Your task to perform on an android device: What is the news today? Image 0: 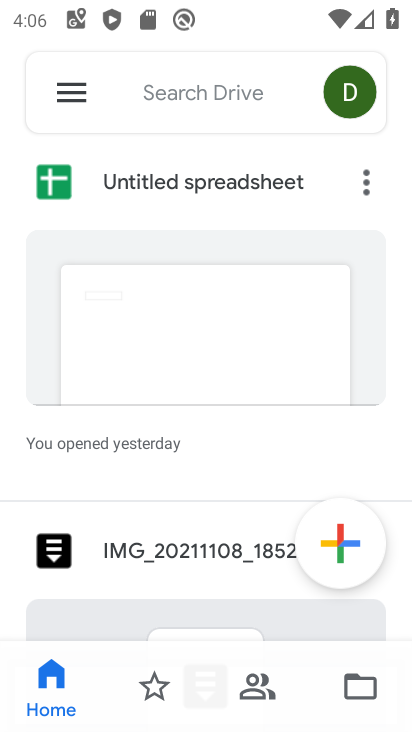
Step 0: press home button
Your task to perform on an android device: What is the news today? Image 1: 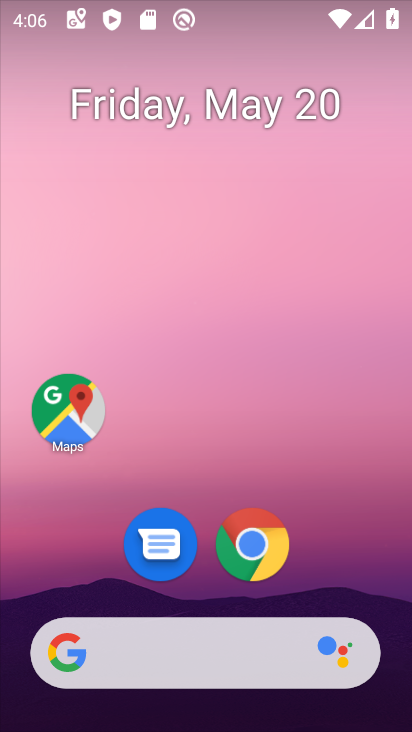
Step 1: click (107, 657)
Your task to perform on an android device: What is the news today? Image 2: 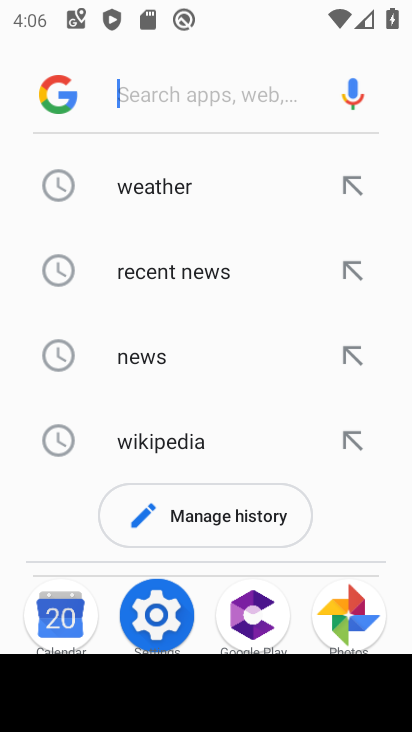
Step 2: click (150, 98)
Your task to perform on an android device: What is the news today? Image 3: 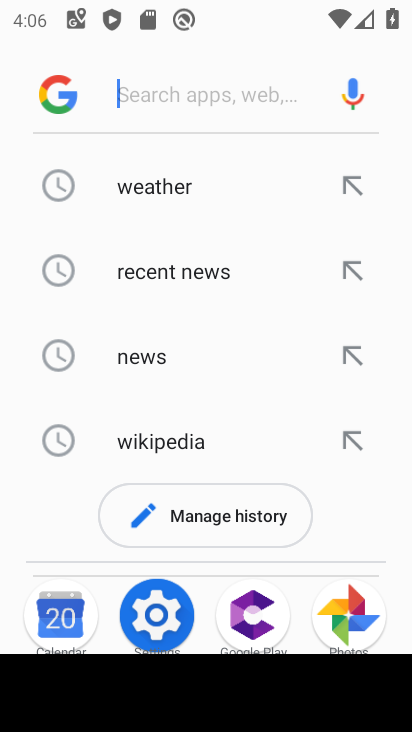
Step 3: type "news today"
Your task to perform on an android device: What is the news today? Image 4: 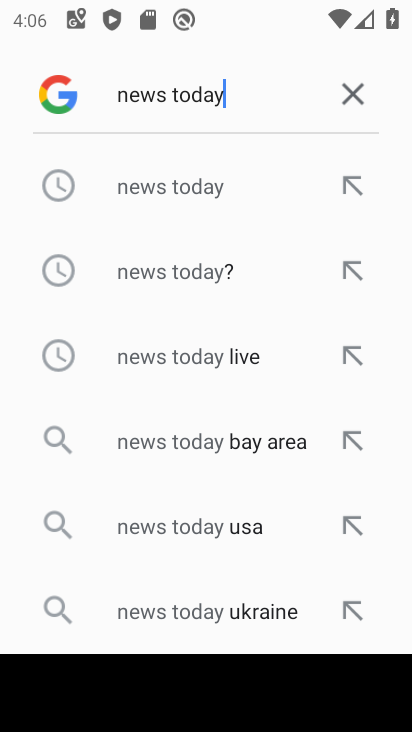
Step 4: click (156, 181)
Your task to perform on an android device: What is the news today? Image 5: 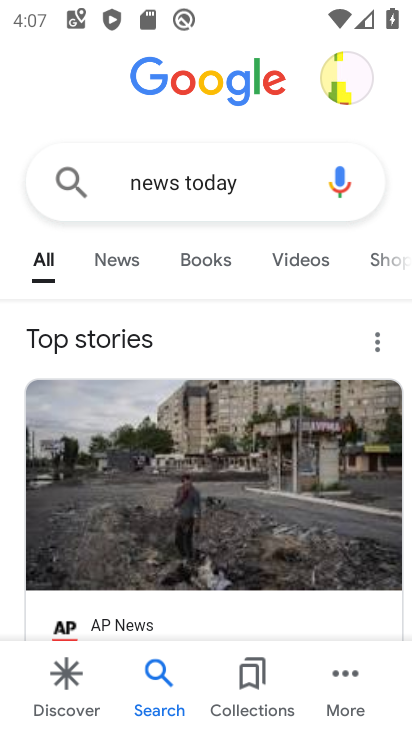
Step 5: click (118, 261)
Your task to perform on an android device: What is the news today? Image 6: 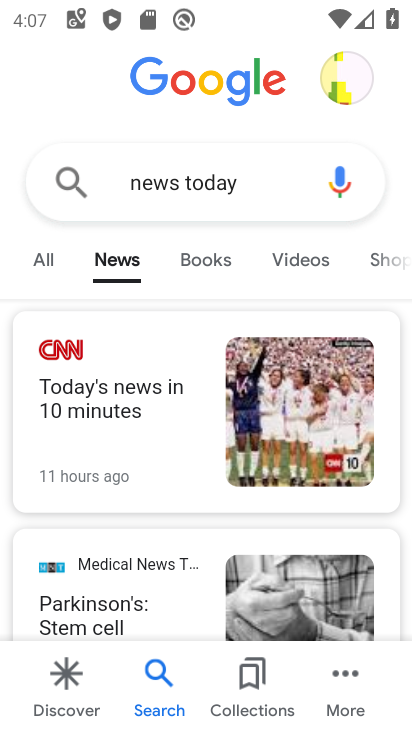
Step 6: drag from (144, 516) to (153, 244)
Your task to perform on an android device: What is the news today? Image 7: 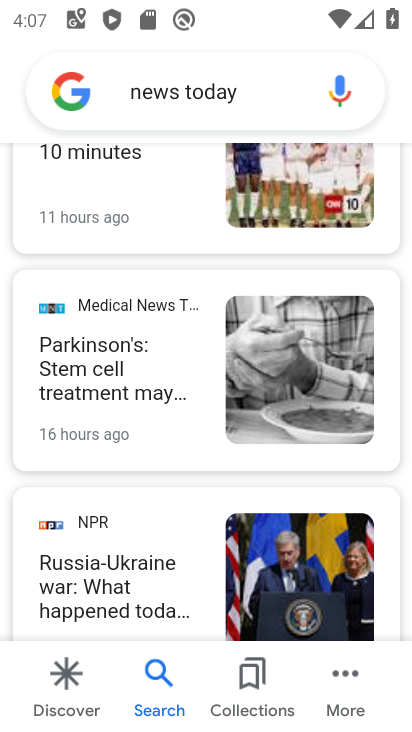
Step 7: drag from (121, 496) to (144, 243)
Your task to perform on an android device: What is the news today? Image 8: 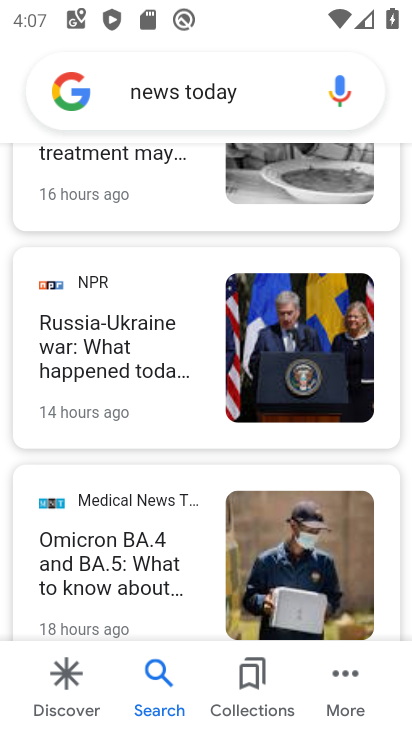
Step 8: drag from (125, 479) to (148, 272)
Your task to perform on an android device: What is the news today? Image 9: 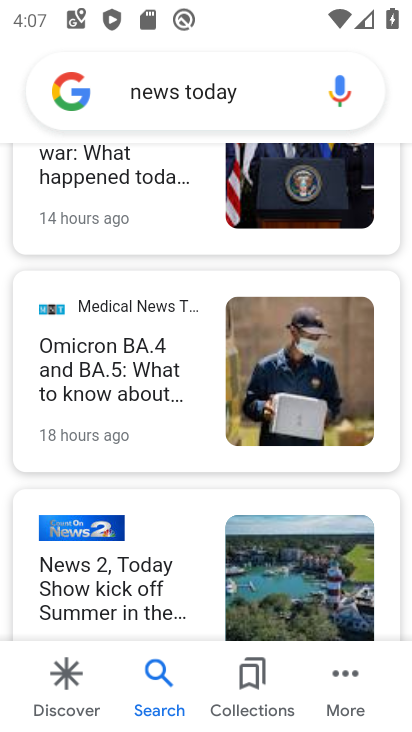
Step 9: drag from (150, 277) to (155, 588)
Your task to perform on an android device: What is the news today? Image 10: 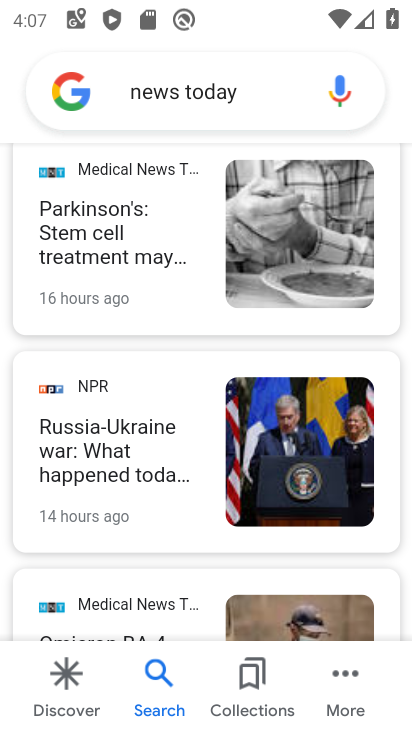
Step 10: drag from (144, 279) to (126, 649)
Your task to perform on an android device: What is the news today? Image 11: 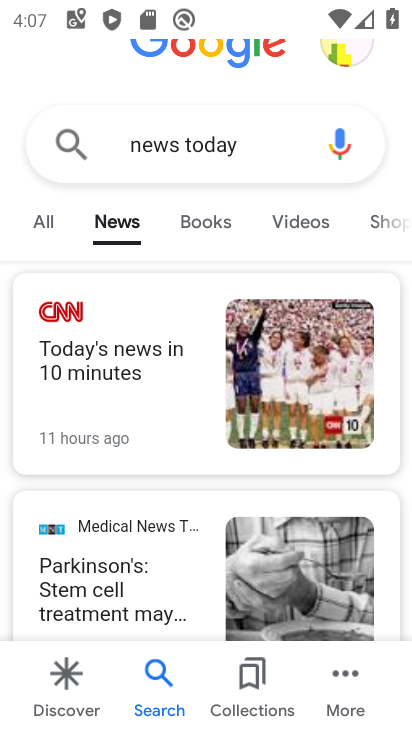
Step 11: click (112, 354)
Your task to perform on an android device: What is the news today? Image 12: 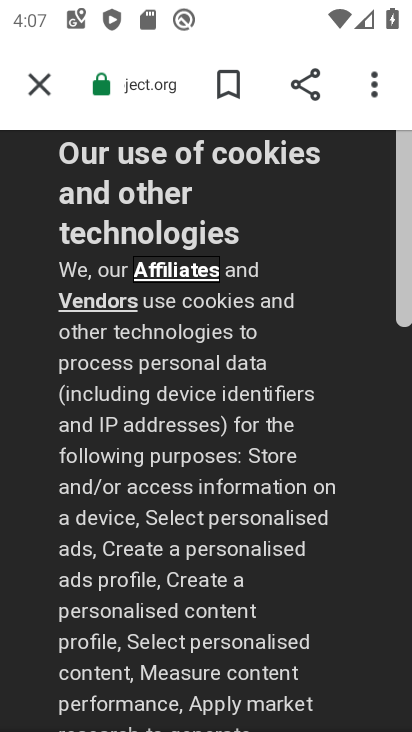
Step 12: task complete